Your task to perform on an android device: make emails show in primary in the gmail app Image 0: 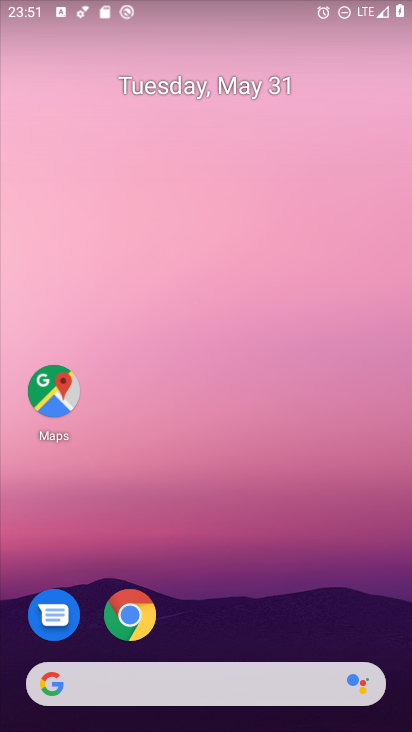
Step 0: drag from (391, 654) to (309, 136)
Your task to perform on an android device: make emails show in primary in the gmail app Image 1: 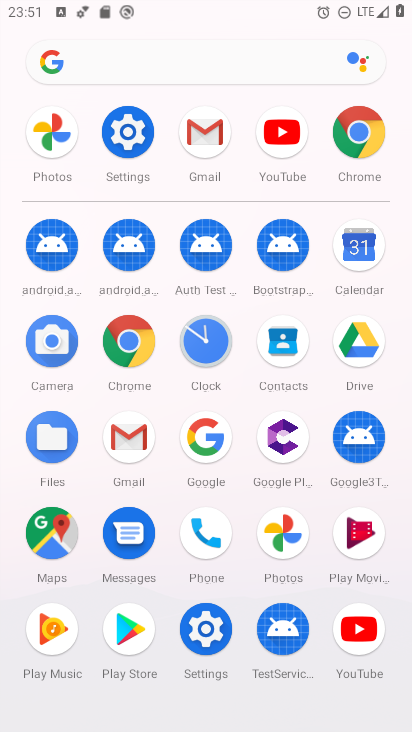
Step 1: click (126, 437)
Your task to perform on an android device: make emails show in primary in the gmail app Image 2: 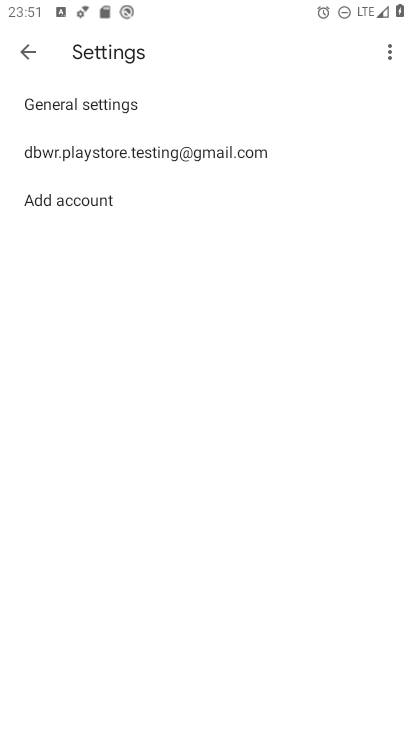
Step 2: click (131, 159)
Your task to perform on an android device: make emails show in primary in the gmail app Image 3: 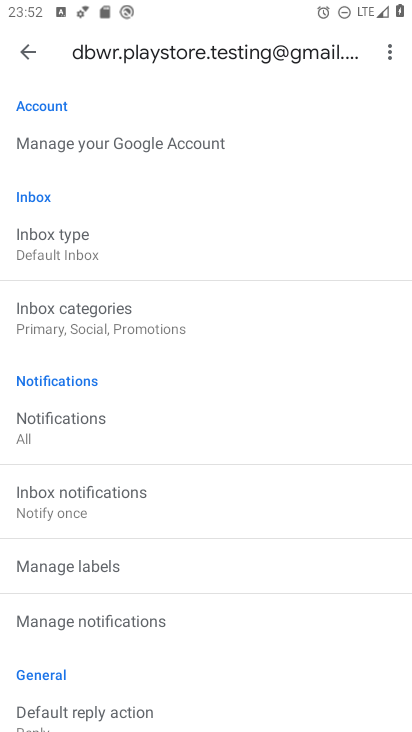
Step 3: click (81, 322)
Your task to perform on an android device: make emails show in primary in the gmail app Image 4: 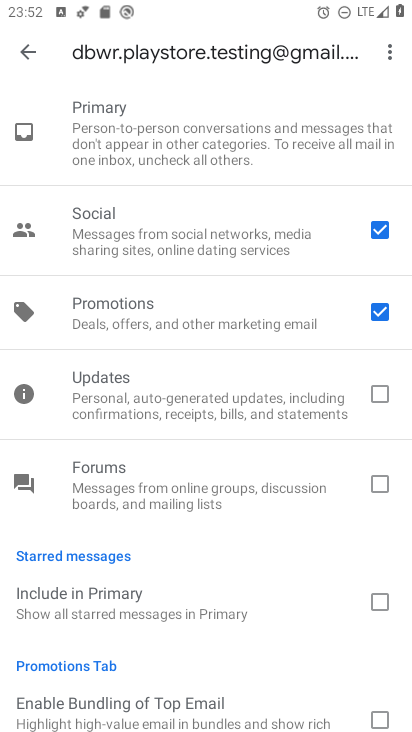
Step 4: click (382, 226)
Your task to perform on an android device: make emails show in primary in the gmail app Image 5: 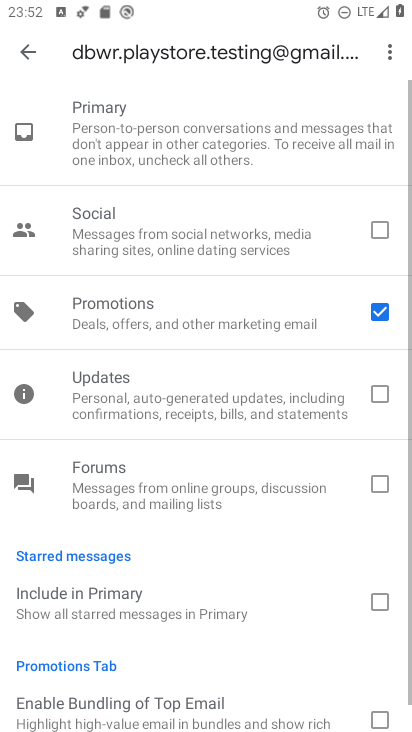
Step 5: click (384, 316)
Your task to perform on an android device: make emails show in primary in the gmail app Image 6: 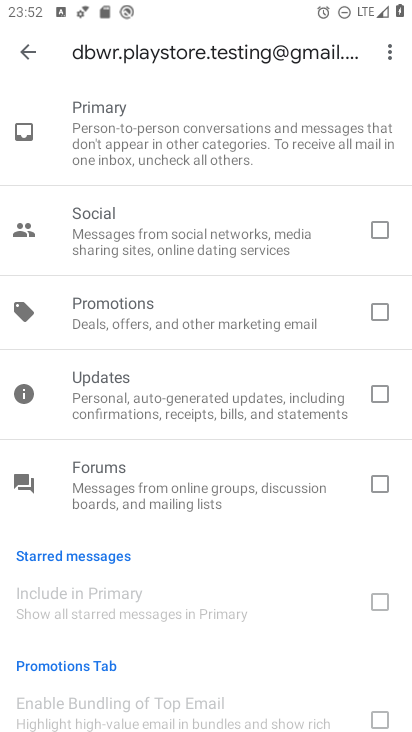
Step 6: task complete